Your task to perform on an android device: Open calendar and show me the third week of next month Image 0: 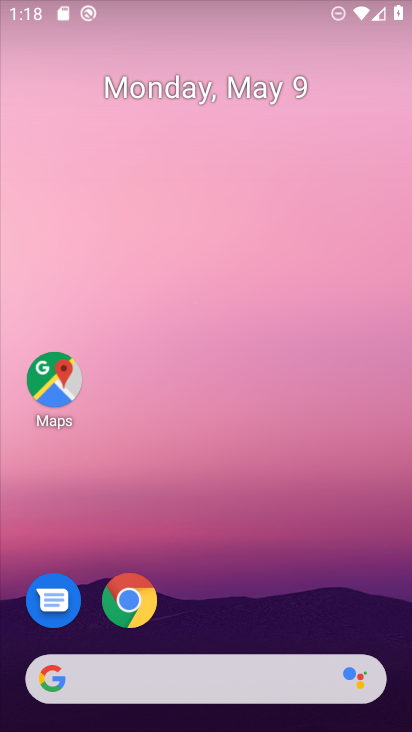
Step 0: press home button
Your task to perform on an android device: Open calendar and show me the third week of next month Image 1: 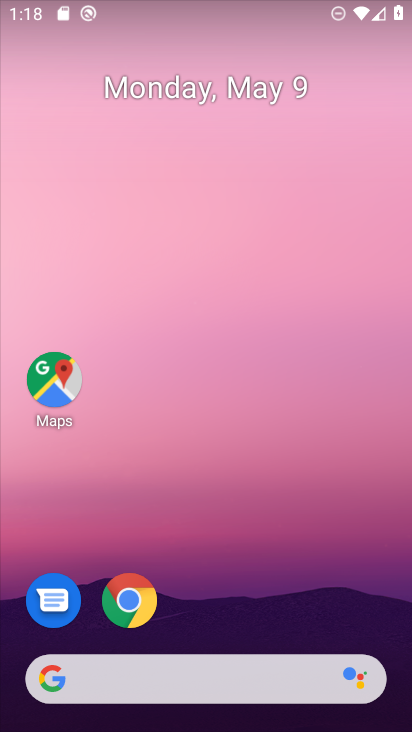
Step 1: drag from (158, 675) to (258, 163)
Your task to perform on an android device: Open calendar and show me the third week of next month Image 2: 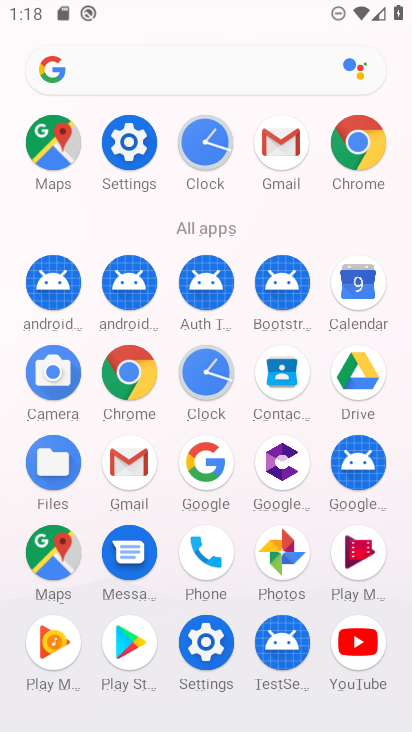
Step 2: click (358, 296)
Your task to perform on an android device: Open calendar and show me the third week of next month Image 3: 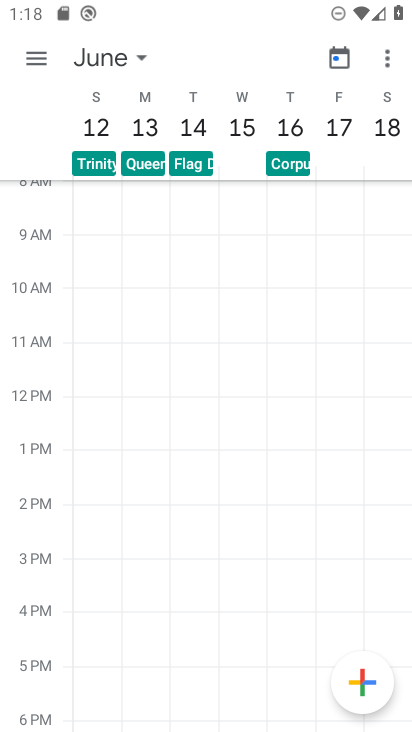
Step 3: click (91, 57)
Your task to perform on an android device: Open calendar and show me the third week of next month Image 4: 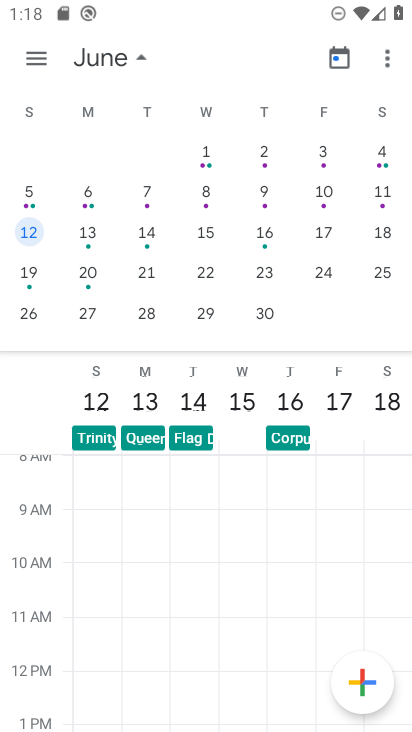
Step 4: task complete